Your task to perform on an android device: turn on notifications settings in the gmail app Image 0: 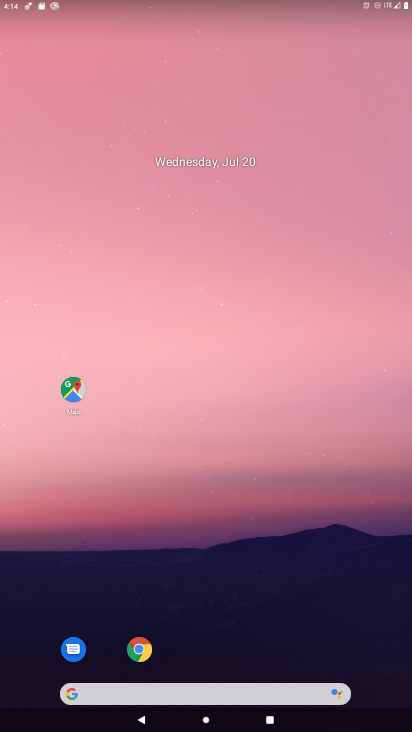
Step 0: drag from (193, 689) to (257, 128)
Your task to perform on an android device: turn on notifications settings in the gmail app Image 1: 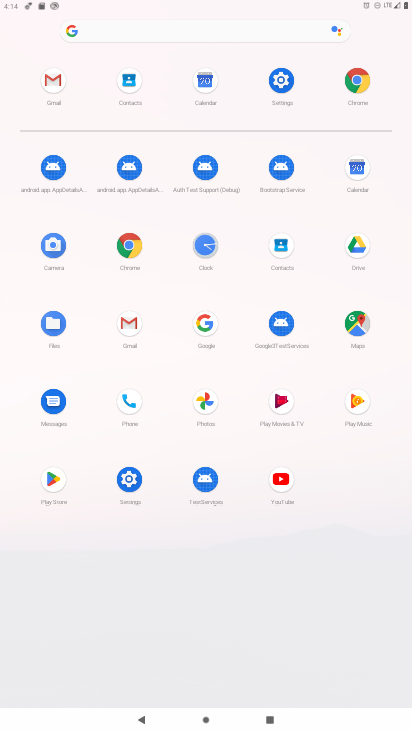
Step 1: click (52, 77)
Your task to perform on an android device: turn on notifications settings in the gmail app Image 2: 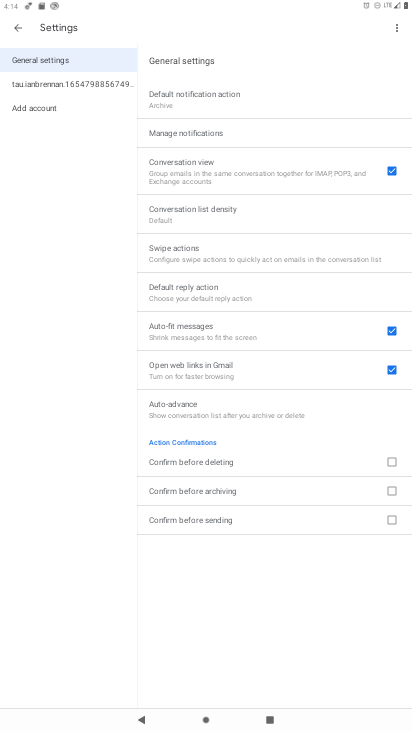
Step 2: click (164, 131)
Your task to perform on an android device: turn on notifications settings in the gmail app Image 3: 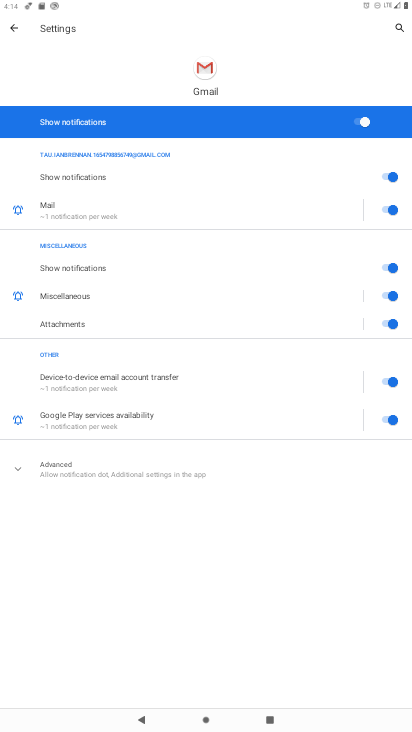
Step 3: click (360, 124)
Your task to perform on an android device: turn on notifications settings in the gmail app Image 4: 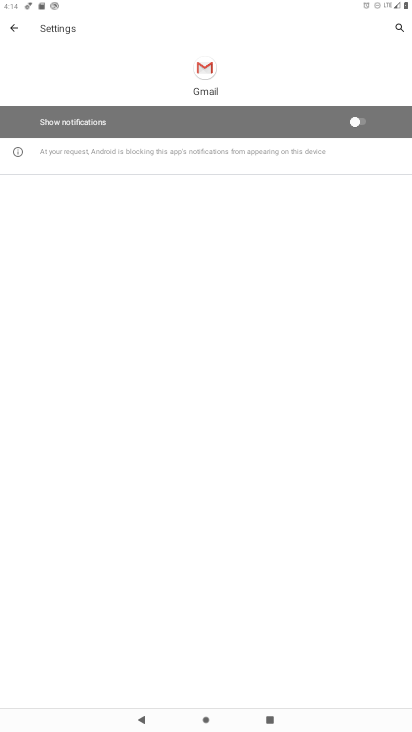
Step 4: click (360, 124)
Your task to perform on an android device: turn on notifications settings in the gmail app Image 5: 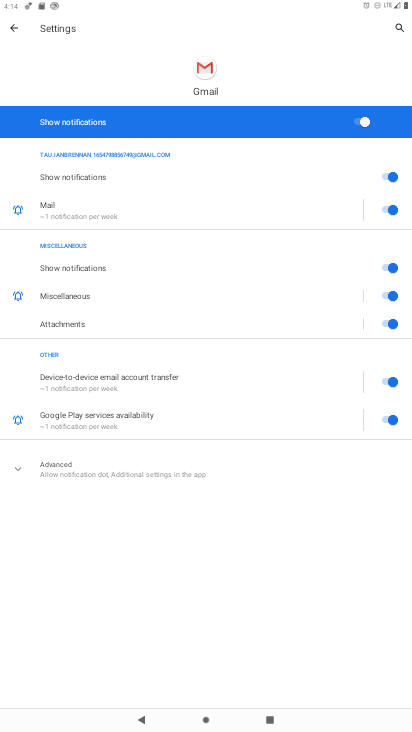
Step 5: task complete